Your task to perform on an android device: Open the map Image 0: 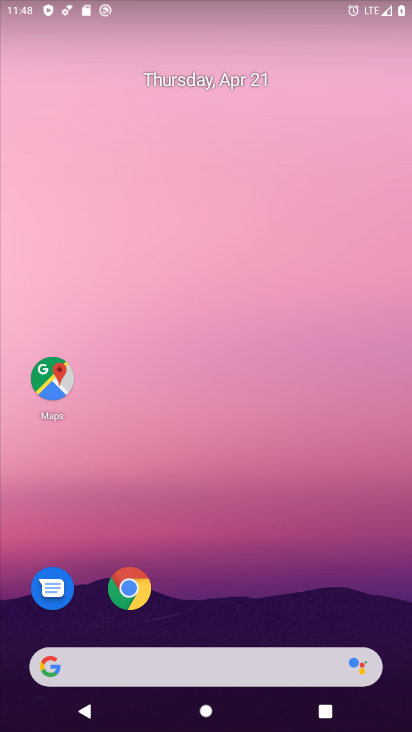
Step 0: drag from (243, 687) to (335, 155)
Your task to perform on an android device: Open the map Image 1: 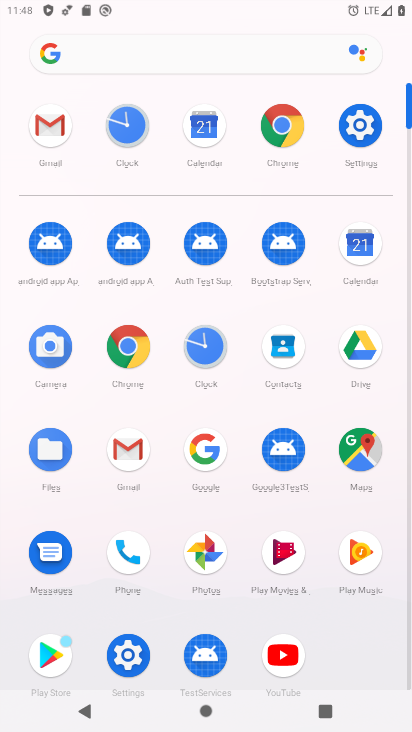
Step 1: click (347, 441)
Your task to perform on an android device: Open the map Image 2: 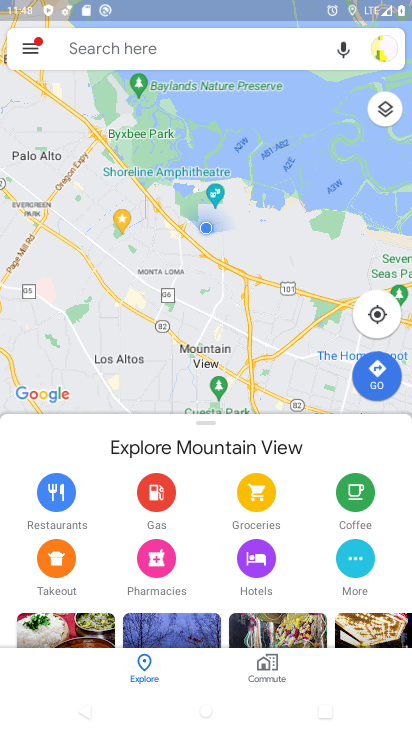
Step 2: click (163, 62)
Your task to perform on an android device: Open the map Image 3: 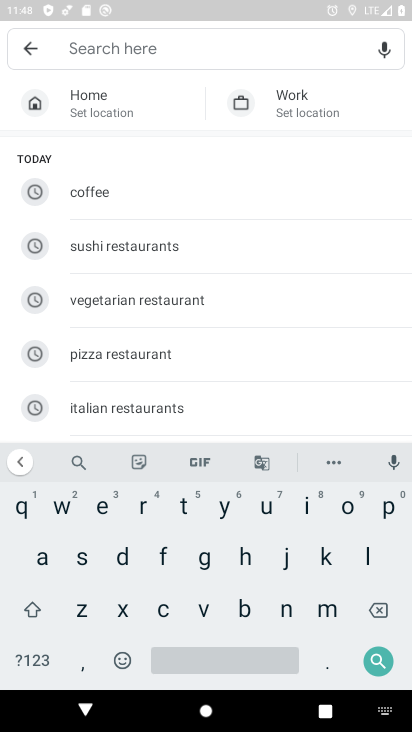
Step 3: click (21, 52)
Your task to perform on an android device: Open the map Image 4: 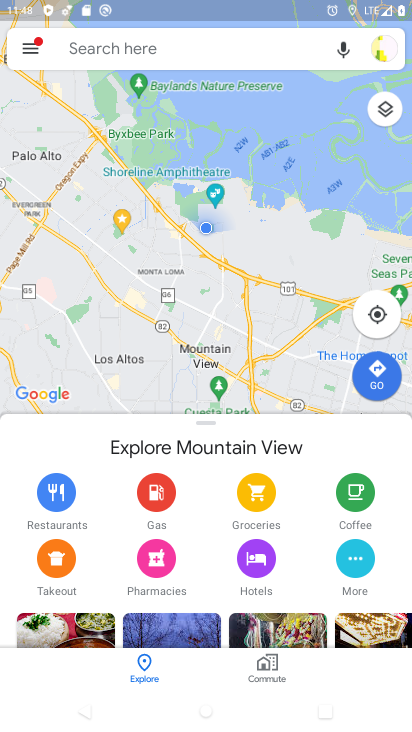
Step 4: click (258, 231)
Your task to perform on an android device: Open the map Image 5: 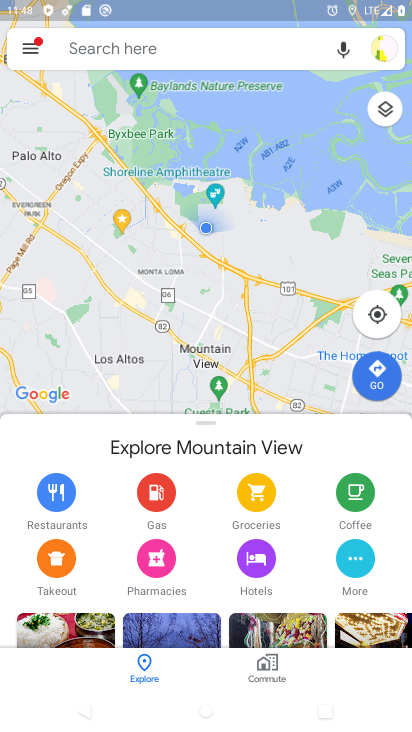
Step 5: task complete